Your task to perform on an android device: delete a single message in the gmail app Image 0: 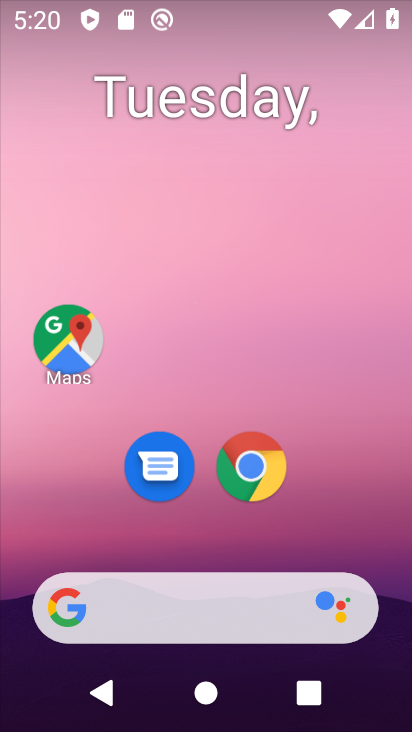
Step 0: drag from (333, 514) to (333, 137)
Your task to perform on an android device: delete a single message in the gmail app Image 1: 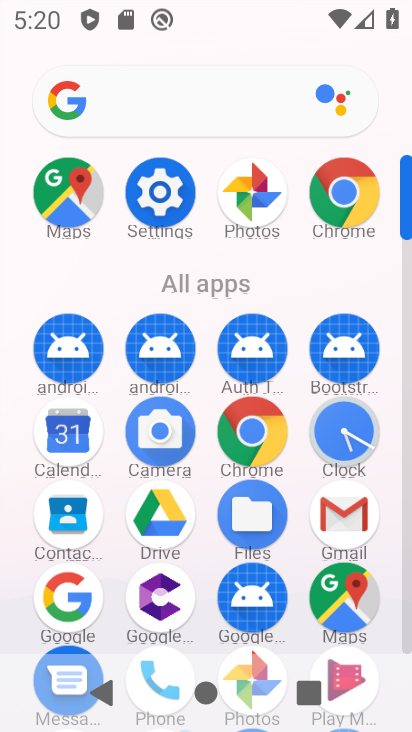
Step 1: click (347, 502)
Your task to perform on an android device: delete a single message in the gmail app Image 2: 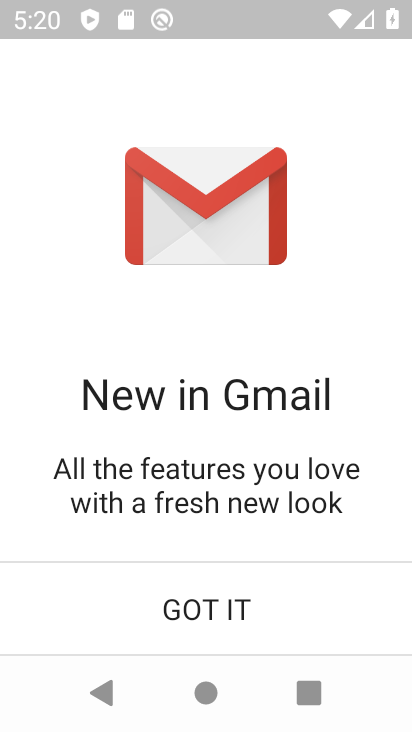
Step 2: click (252, 603)
Your task to perform on an android device: delete a single message in the gmail app Image 3: 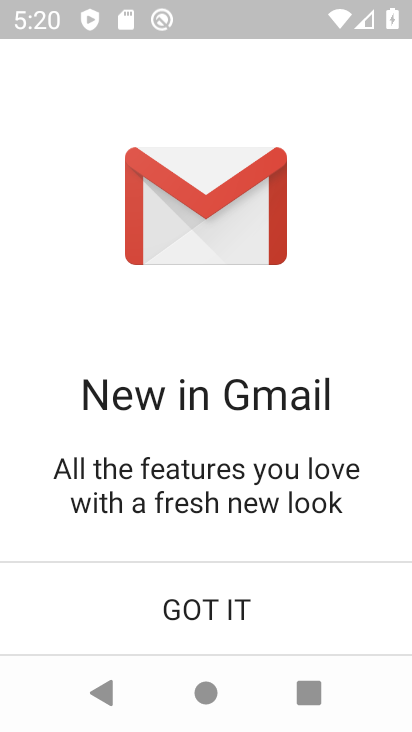
Step 3: click (252, 603)
Your task to perform on an android device: delete a single message in the gmail app Image 4: 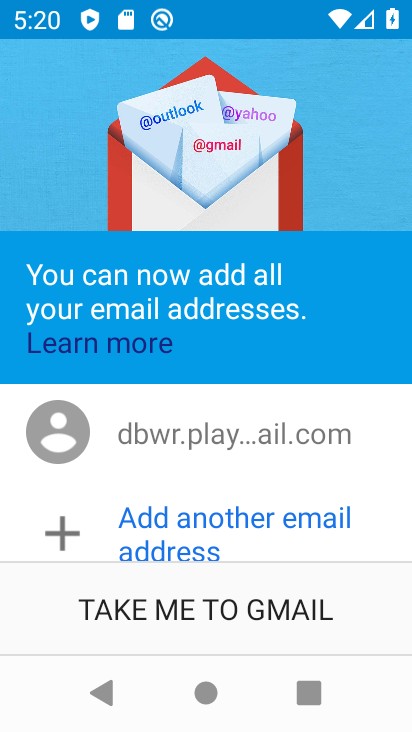
Step 4: click (229, 596)
Your task to perform on an android device: delete a single message in the gmail app Image 5: 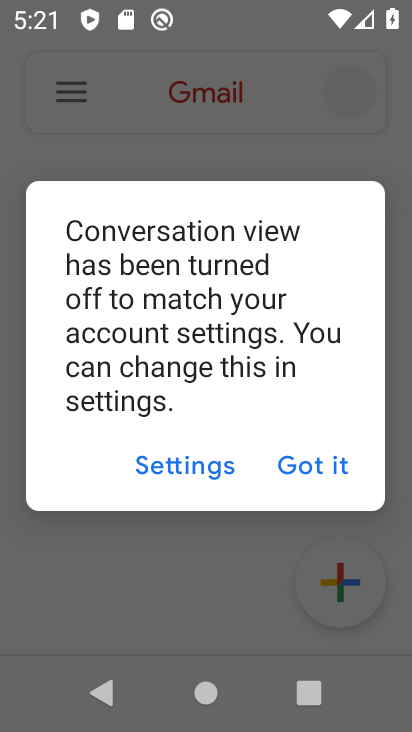
Step 5: click (286, 449)
Your task to perform on an android device: delete a single message in the gmail app Image 6: 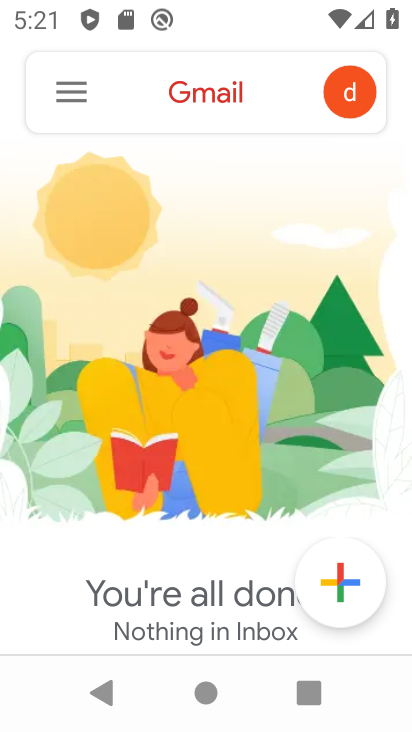
Step 6: click (74, 82)
Your task to perform on an android device: delete a single message in the gmail app Image 7: 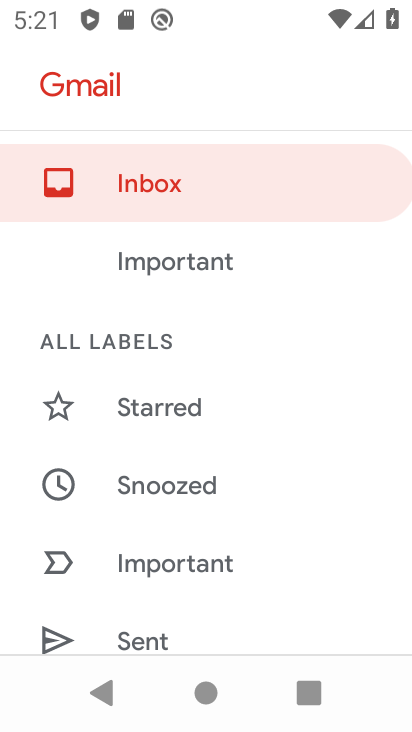
Step 7: task complete